Your task to perform on an android device: star an email in the gmail app Image 0: 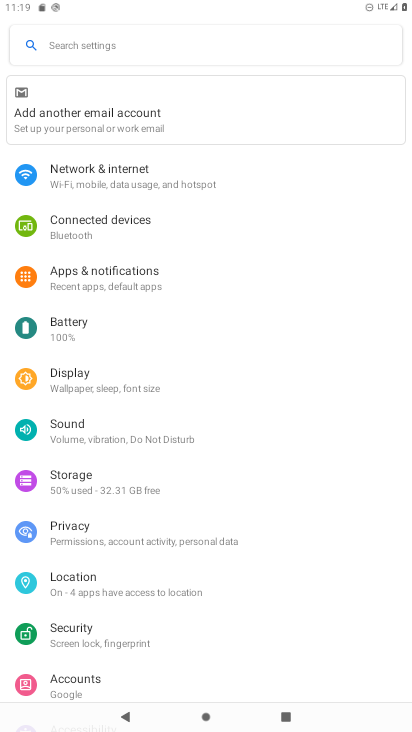
Step 0: press home button
Your task to perform on an android device: star an email in the gmail app Image 1: 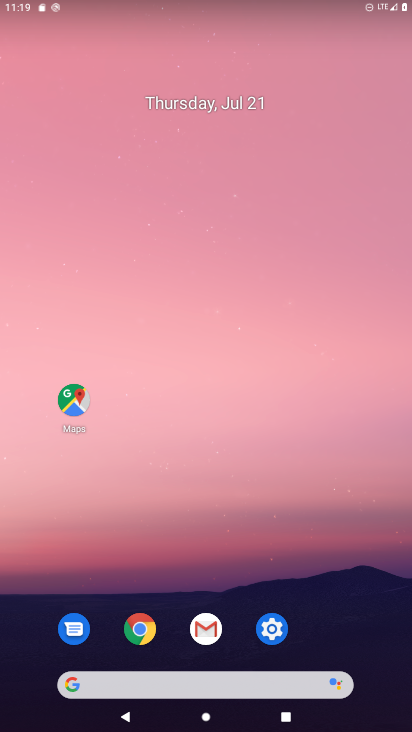
Step 1: click (205, 628)
Your task to perform on an android device: star an email in the gmail app Image 2: 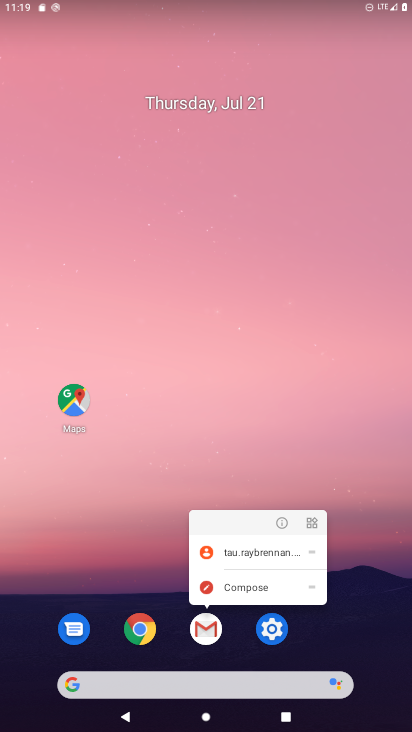
Step 2: click (209, 633)
Your task to perform on an android device: star an email in the gmail app Image 3: 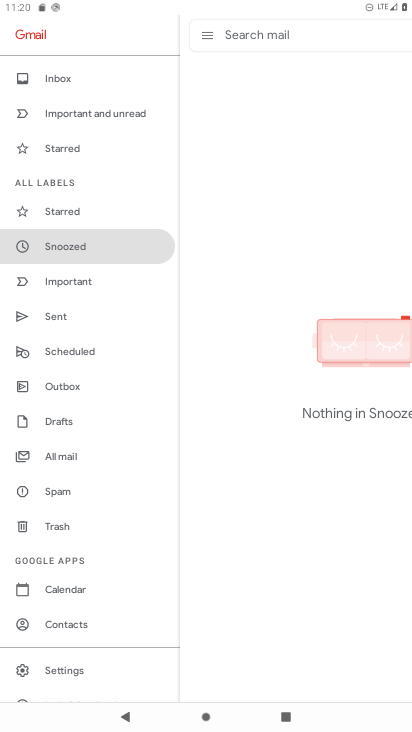
Step 3: click (68, 151)
Your task to perform on an android device: star an email in the gmail app Image 4: 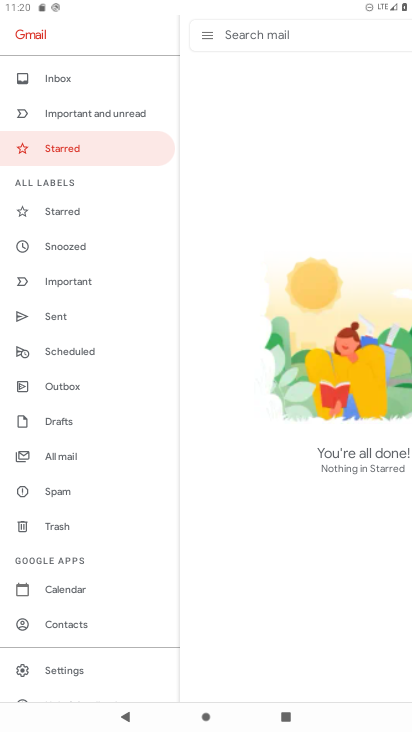
Step 4: task complete